Your task to perform on an android device: Turn on the flashlight Image 0: 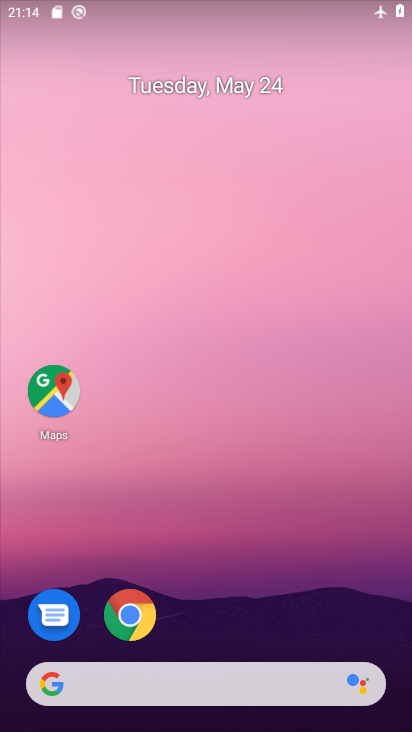
Step 0: click (293, 253)
Your task to perform on an android device: Turn on the flashlight Image 1: 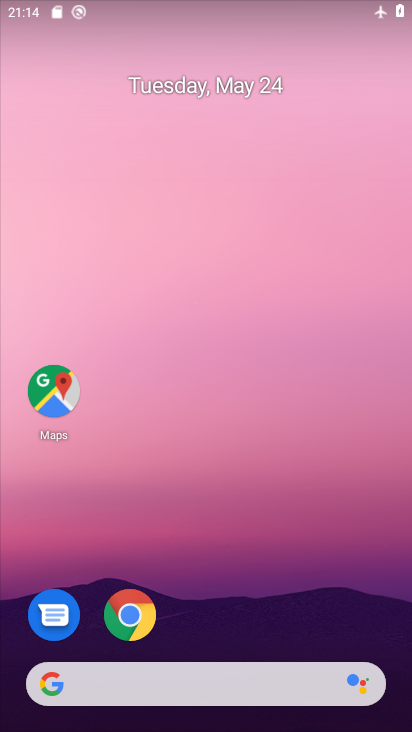
Step 1: drag from (214, 600) to (218, 245)
Your task to perform on an android device: Turn on the flashlight Image 2: 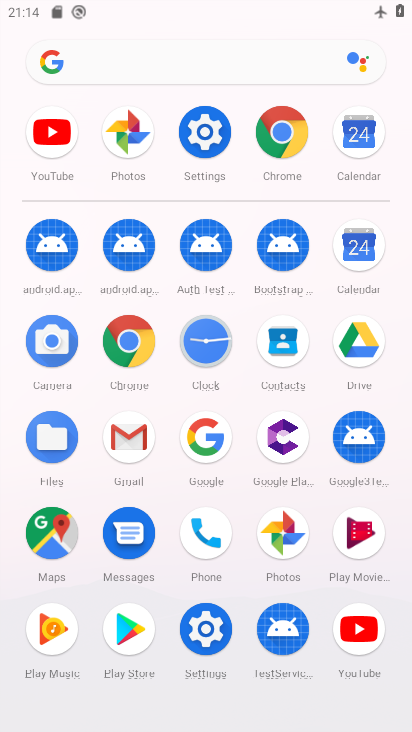
Step 2: click (205, 128)
Your task to perform on an android device: Turn on the flashlight Image 3: 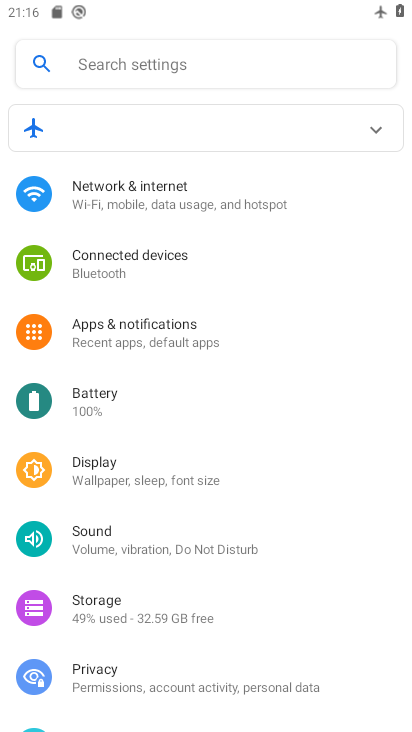
Step 3: task complete